Your task to perform on an android device: Is it going to rain today? Image 0: 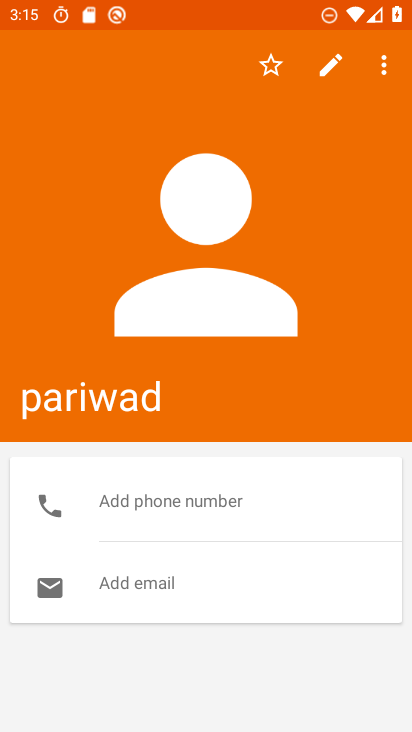
Step 0: press home button
Your task to perform on an android device: Is it going to rain today? Image 1: 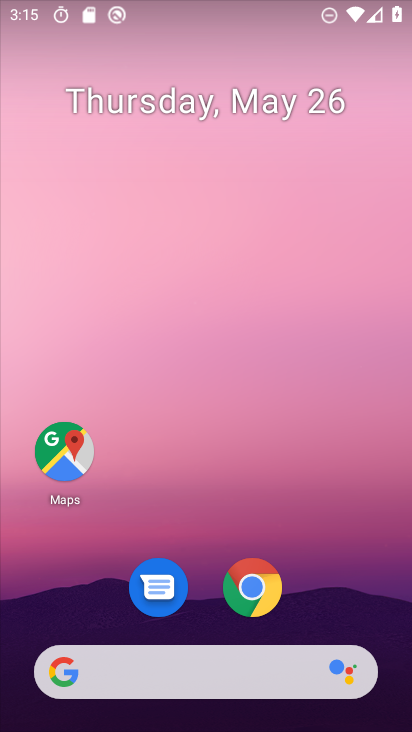
Step 1: drag from (341, 511) to (343, 152)
Your task to perform on an android device: Is it going to rain today? Image 2: 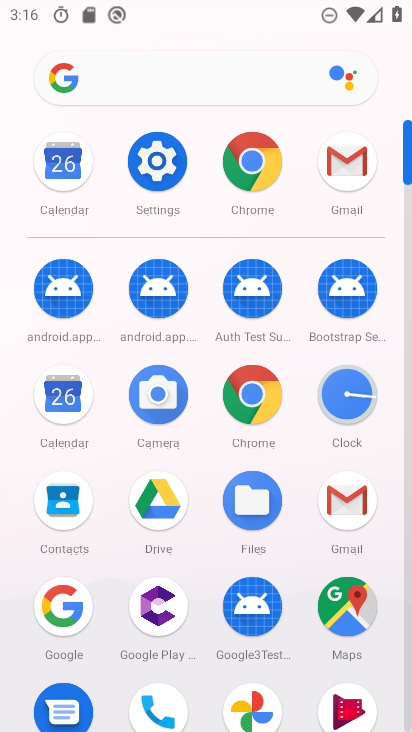
Step 2: click (264, 398)
Your task to perform on an android device: Is it going to rain today? Image 3: 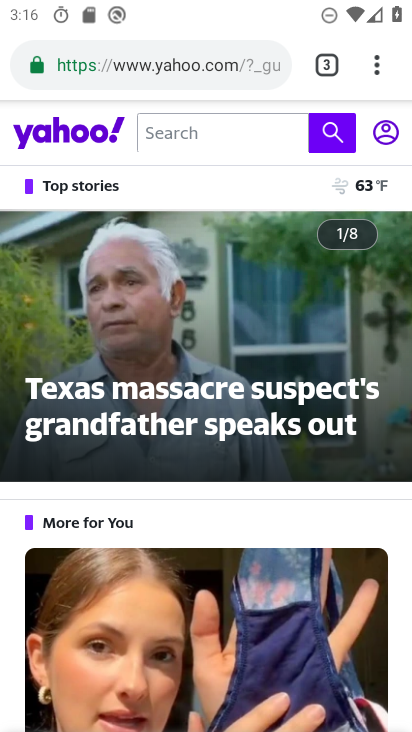
Step 3: click (200, 69)
Your task to perform on an android device: Is it going to rain today? Image 4: 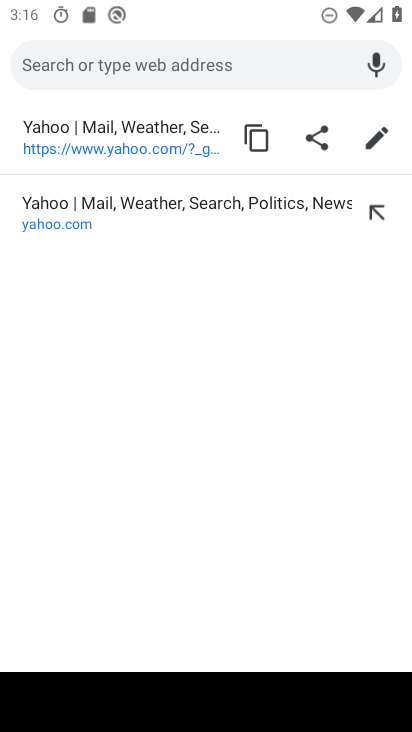
Step 4: type "weather"
Your task to perform on an android device: Is it going to rain today? Image 5: 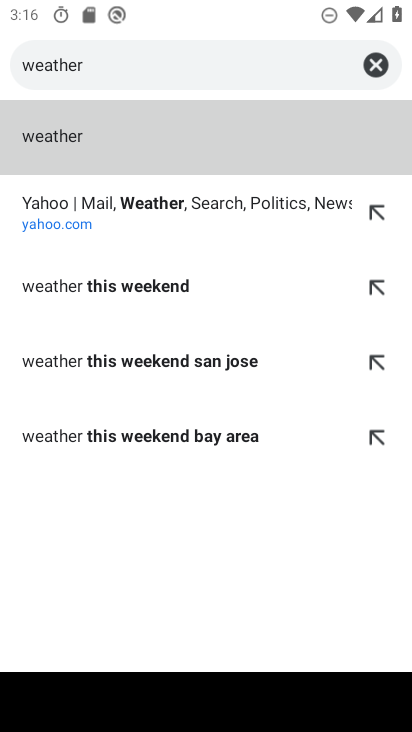
Step 5: click (67, 134)
Your task to perform on an android device: Is it going to rain today? Image 6: 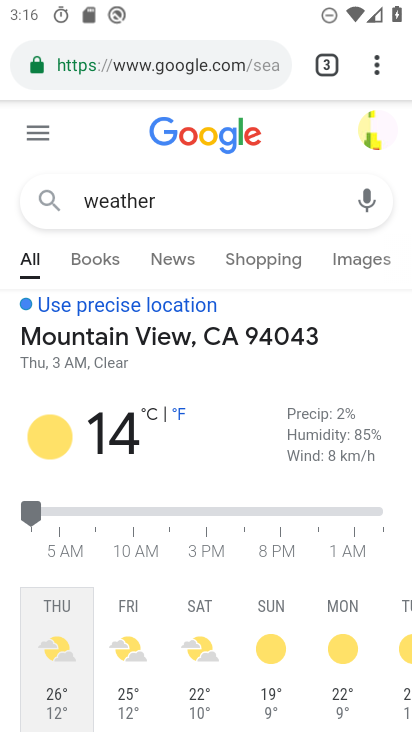
Step 6: task complete